Your task to perform on an android device: Is it going to rain this weekend? Image 0: 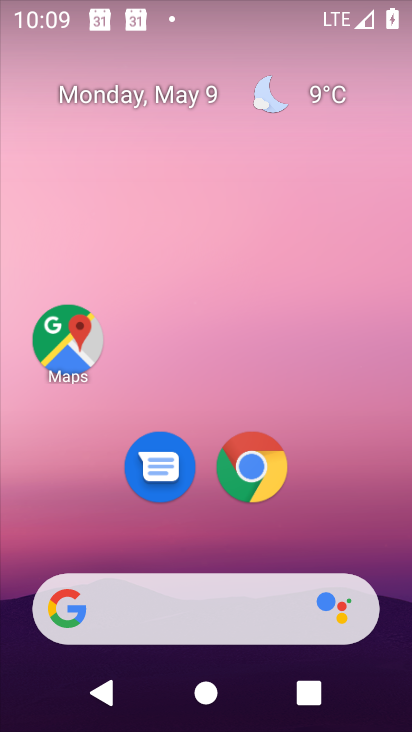
Step 0: click (314, 98)
Your task to perform on an android device: Is it going to rain this weekend? Image 1: 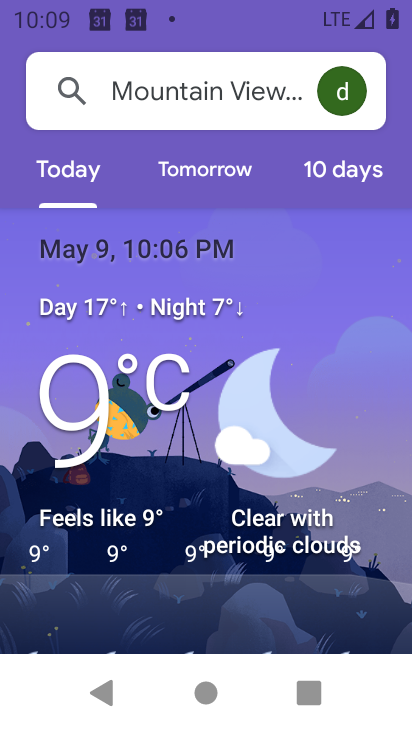
Step 1: click (312, 189)
Your task to perform on an android device: Is it going to rain this weekend? Image 2: 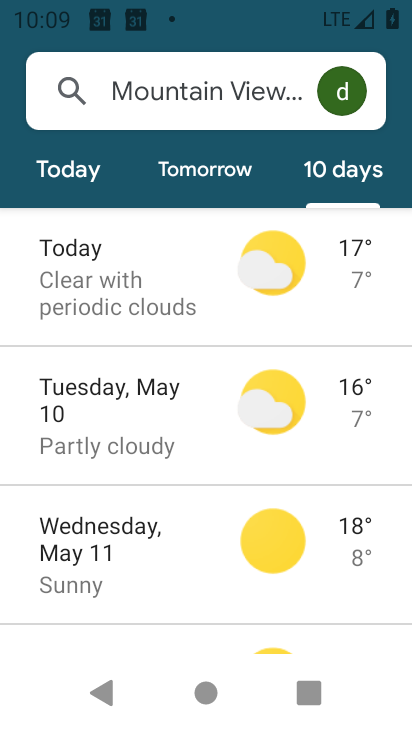
Step 2: task complete